Your task to perform on an android device: refresh tabs in the chrome app Image 0: 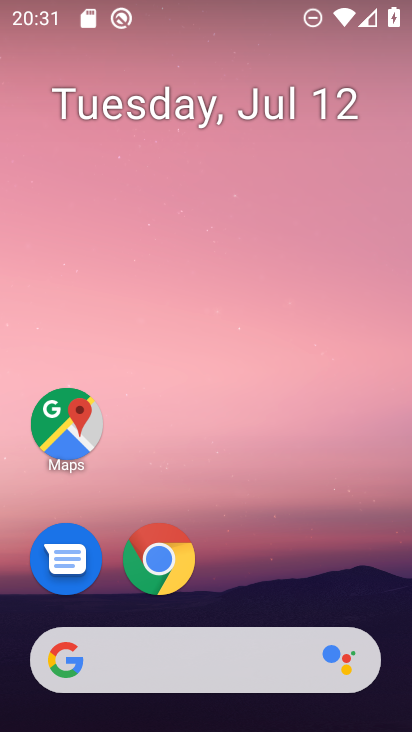
Step 0: drag from (361, 598) to (361, 64)
Your task to perform on an android device: refresh tabs in the chrome app Image 1: 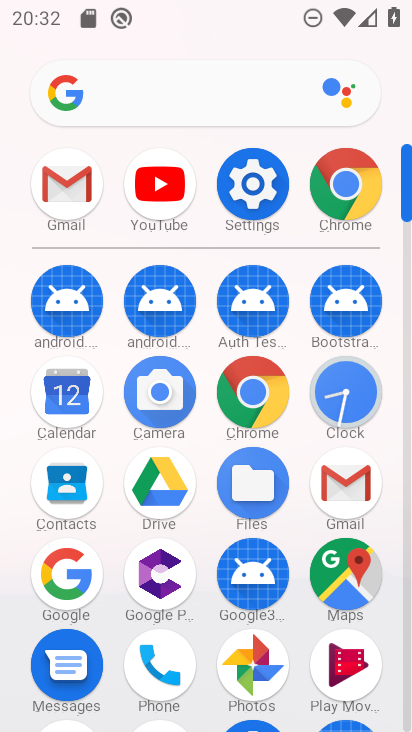
Step 1: click (257, 392)
Your task to perform on an android device: refresh tabs in the chrome app Image 2: 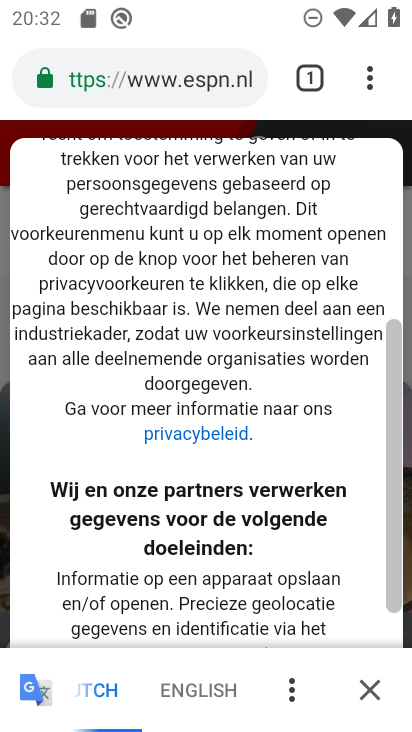
Step 2: click (369, 86)
Your task to perform on an android device: refresh tabs in the chrome app Image 3: 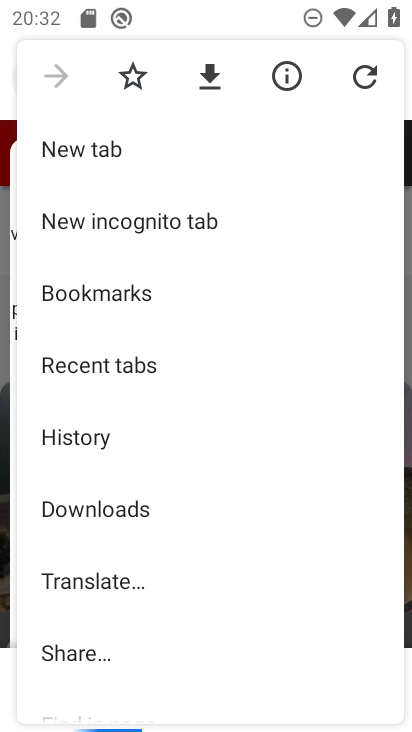
Step 3: click (374, 74)
Your task to perform on an android device: refresh tabs in the chrome app Image 4: 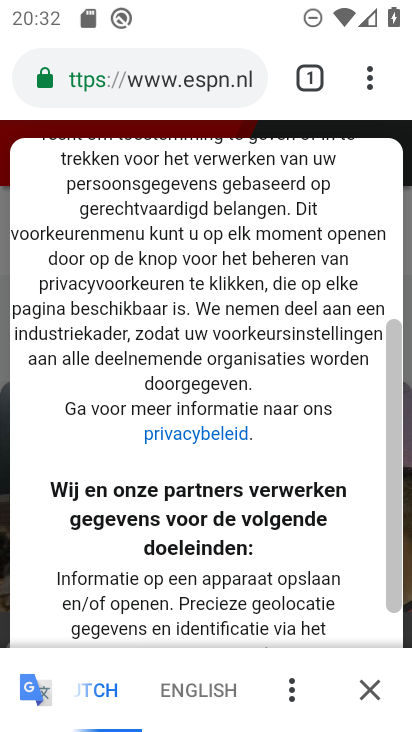
Step 4: task complete